Your task to perform on an android device: choose inbox layout in the gmail app Image 0: 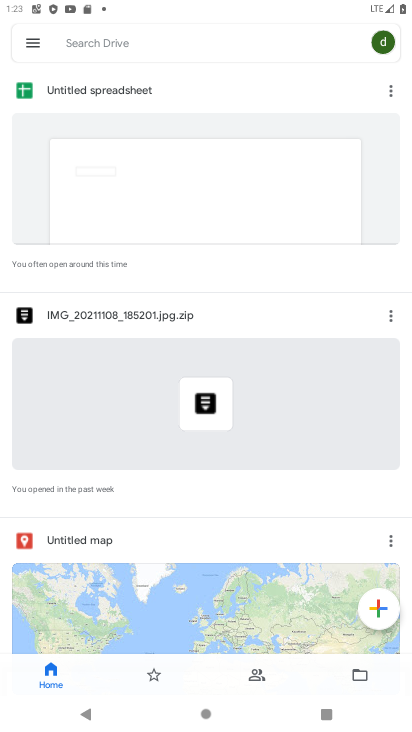
Step 0: press home button
Your task to perform on an android device: choose inbox layout in the gmail app Image 1: 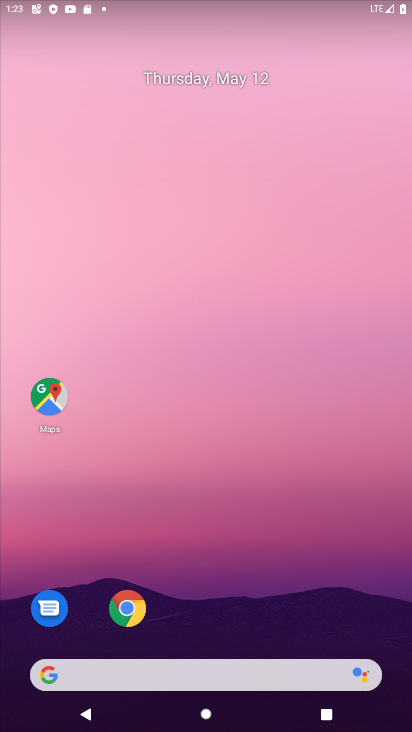
Step 1: drag from (268, 632) to (264, 0)
Your task to perform on an android device: choose inbox layout in the gmail app Image 2: 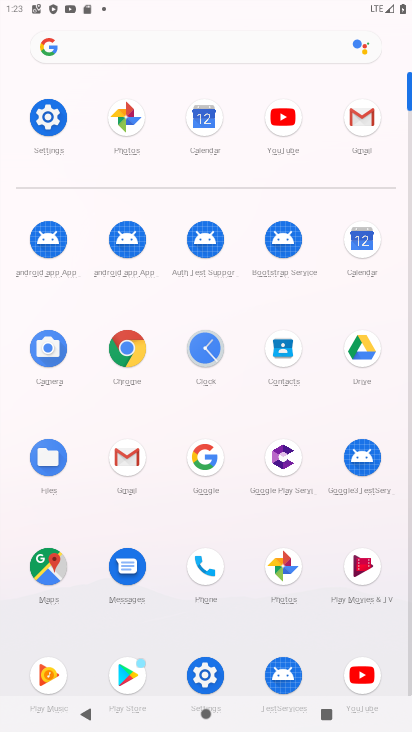
Step 2: click (364, 118)
Your task to perform on an android device: choose inbox layout in the gmail app Image 3: 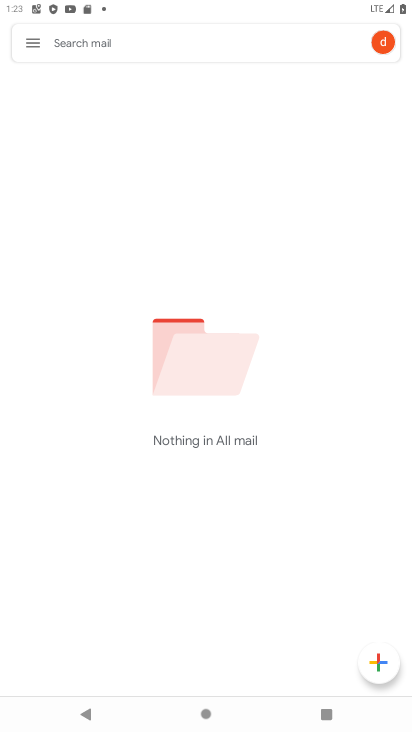
Step 3: click (28, 45)
Your task to perform on an android device: choose inbox layout in the gmail app Image 4: 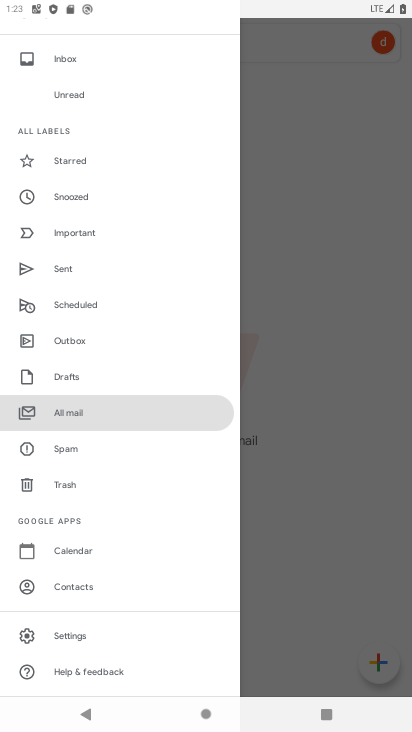
Step 4: click (71, 638)
Your task to perform on an android device: choose inbox layout in the gmail app Image 5: 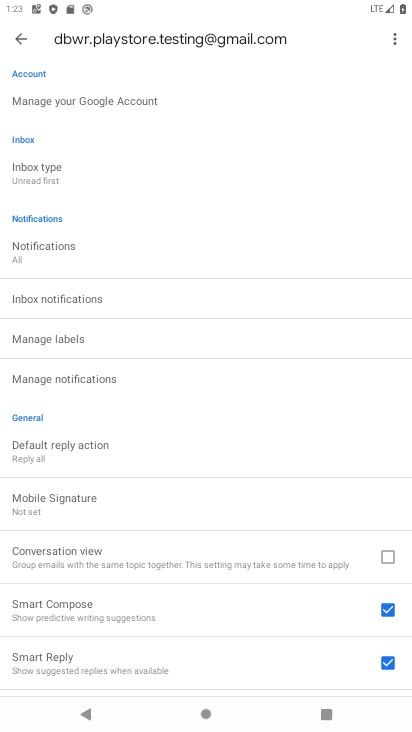
Step 5: click (48, 175)
Your task to perform on an android device: choose inbox layout in the gmail app Image 6: 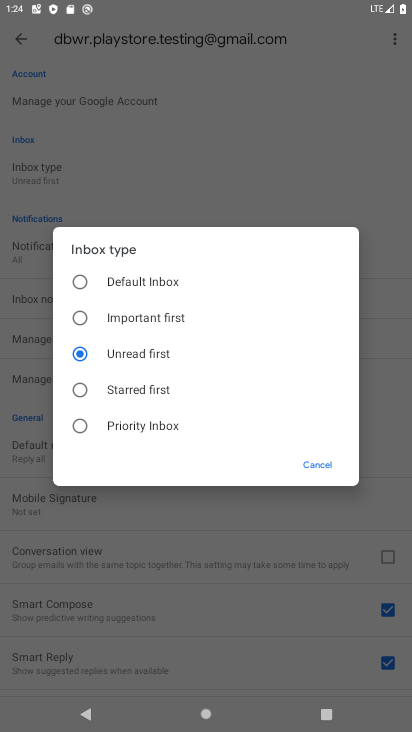
Step 6: click (82, 318)
Your task to perform on an android device: choose inbox layout in the gmail app Image 7: 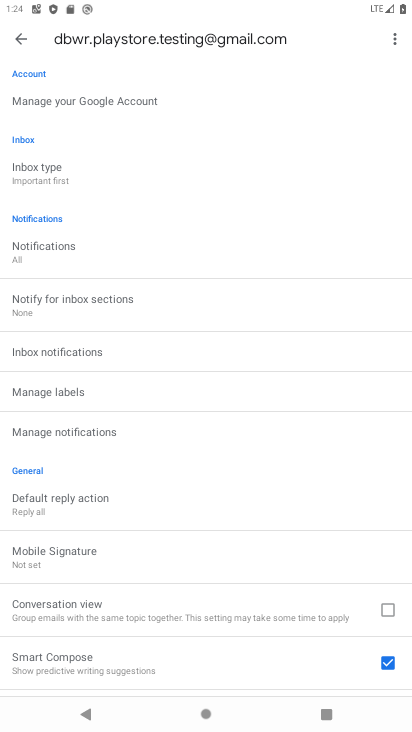
Step 7: task complete